Your task to perform on an android device: change the clock style Image 0: 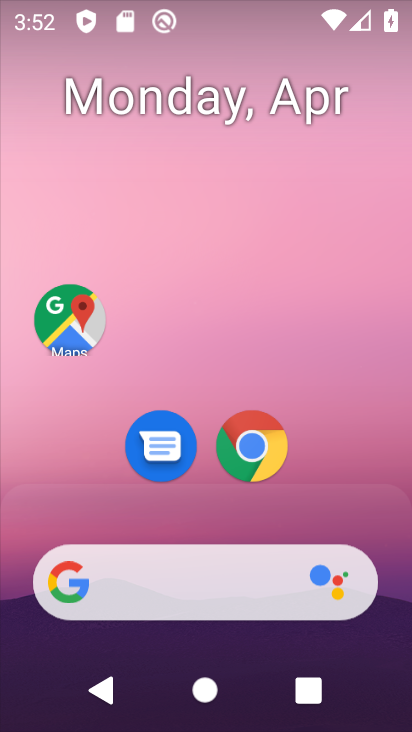
Step 0: drag from (387, 527) to (320, 185)
Your task to perform on an android device: change the clock style Image 1: 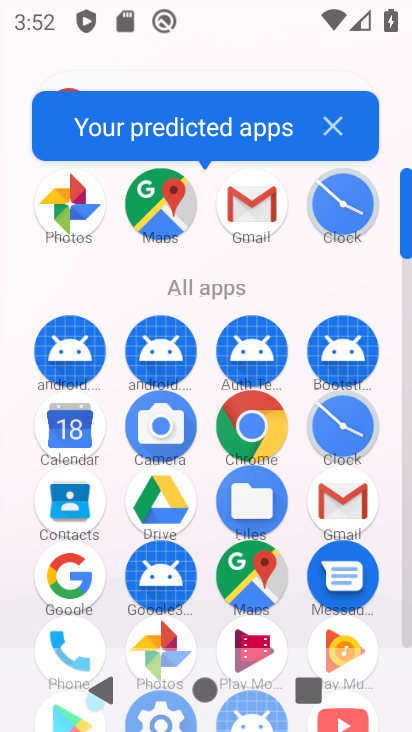
Step 1: click (342, 423)
Your task to perform on an android device: change the clock style Image 2: 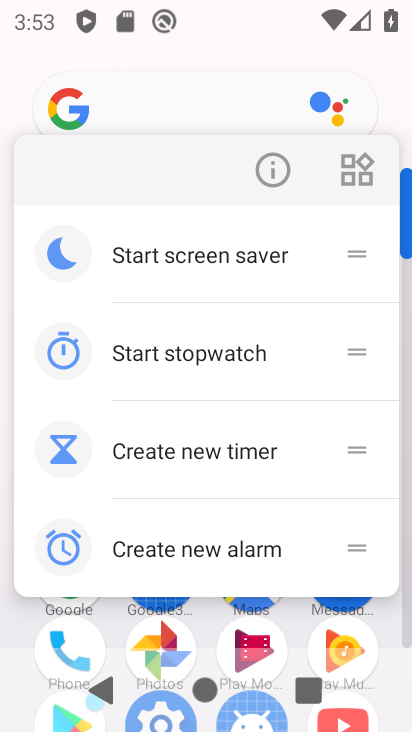
Step 2: click (387, 67)
Your task to perform on an android device: change the clock style Image 3: 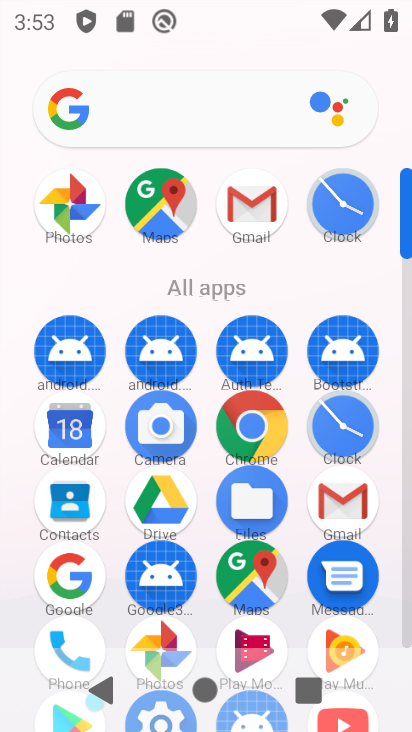
Step 3: click (348, 210)
Your task to perform on an android device: change the clock style Image 4: 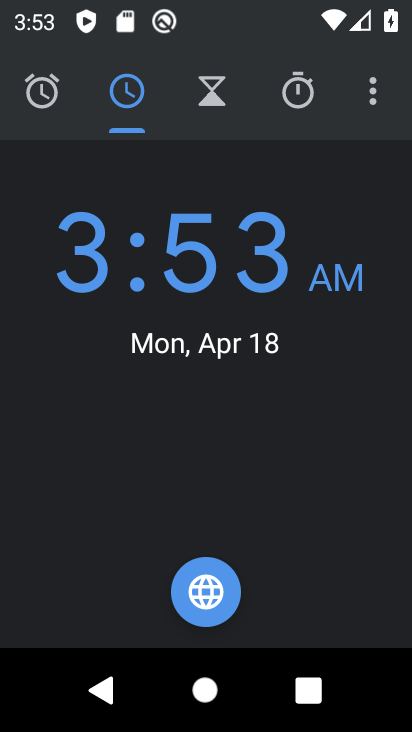
Step 4: click (376, 96)
Your task to perform on an android device: change the clock style Image 5: 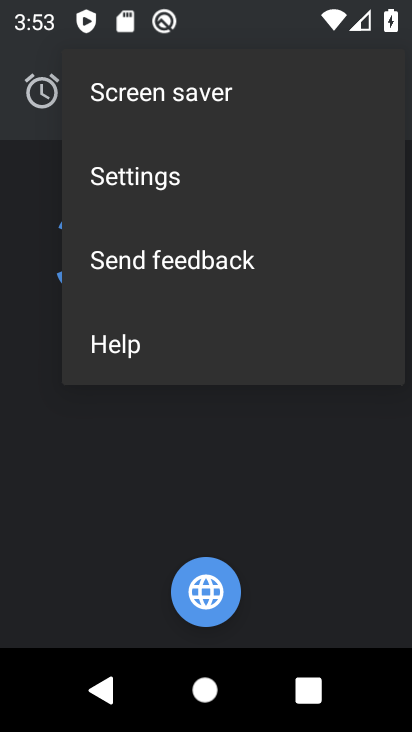
Step 5: click (170, 183)
Your task to perform on an android device: change the clock style Image 6: 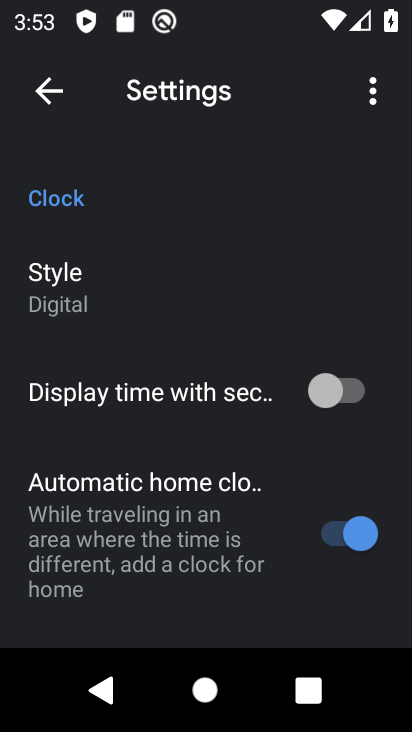
Step 6: click (88, 284)
Your task to perform on an android device: change the clock style Image 7: 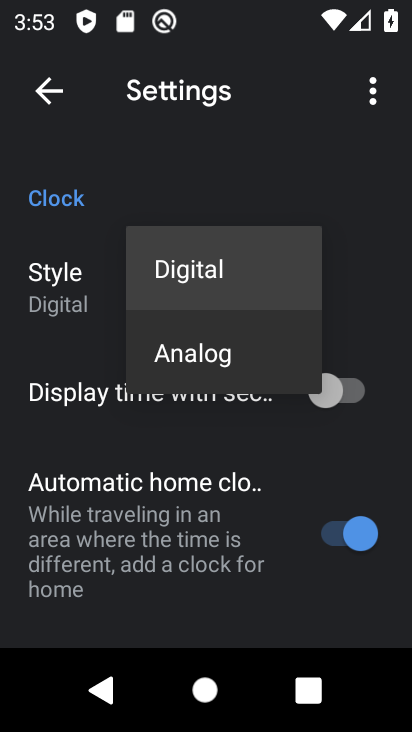
Step 7: click (178, 349)
Your task to perform on an android device: change the clock style Image 8: 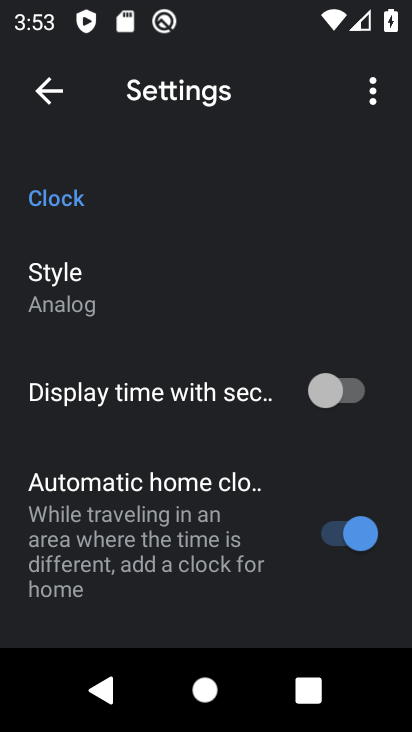
Step 8: task complete